Your task to perform on an android device: turn on bluetooth scan Image 0: 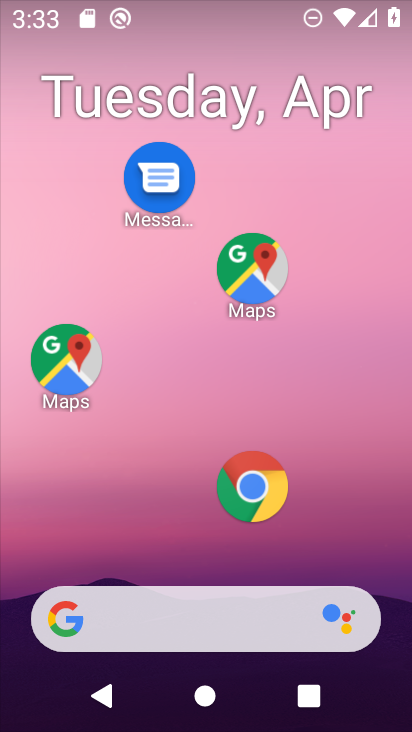
Step 0: drag from (261, 392) to (312, 231)
Your task to perform on an android device: turn on bluetooth scan Image 1: 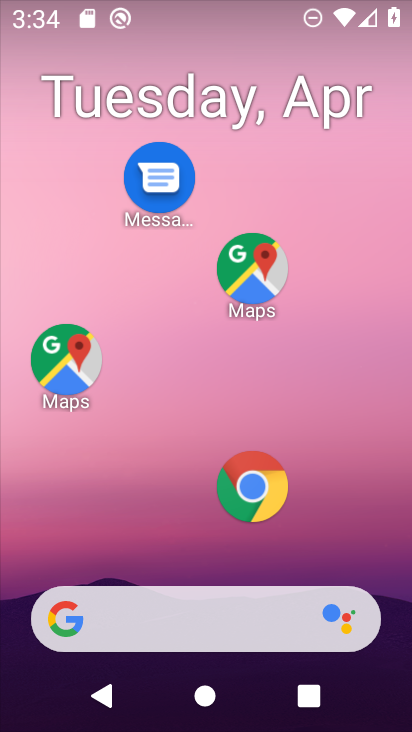
Step 1: drag from (338, 518) to (339, 112)
Your task to perform on an android device: turn on bluetooth scan Image 2: 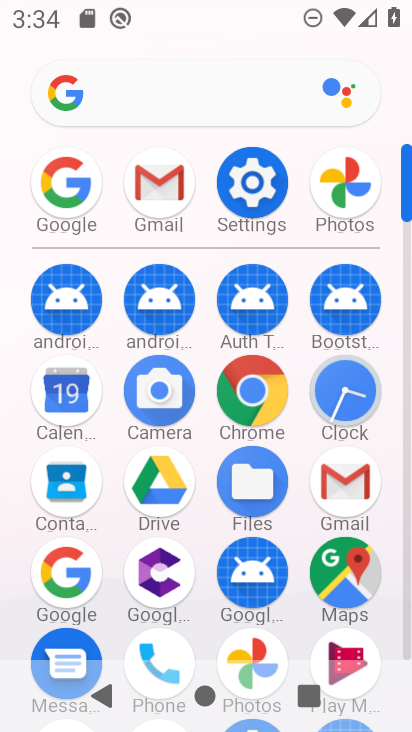
Step 2: click (250, 194)
Your task to perform on an android device: turn on bluetooth scan Image 3: 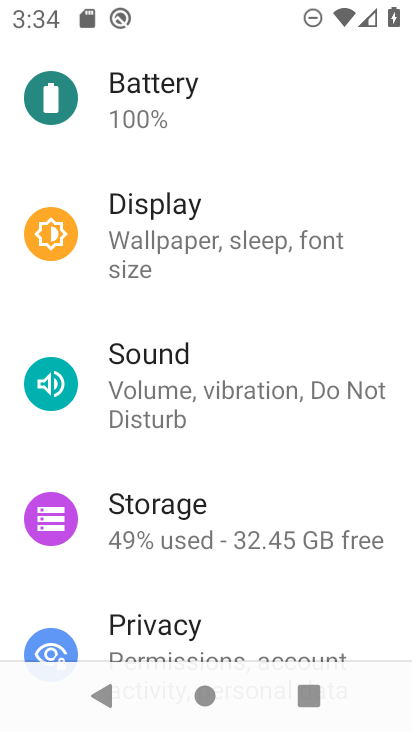
Step 3: drag from (230, 497) to (286, 125)
Your task to perform on an android device: turn on bluetooth scan Image 4: 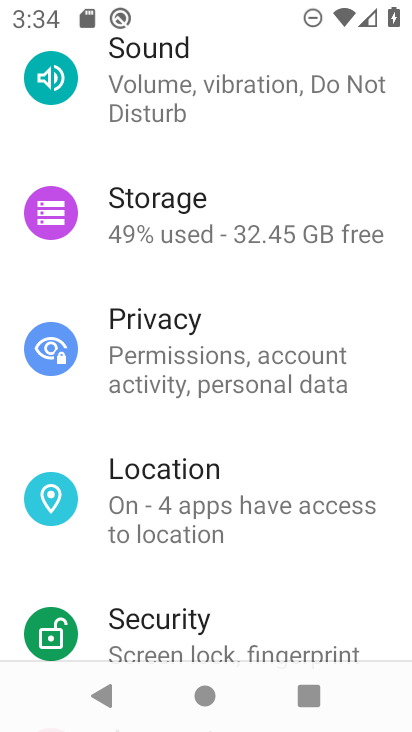
Step 4: drag from (253, 561) to (278, 296)
Your task to perform on an android device: turn on bluetooth scan Image 5: 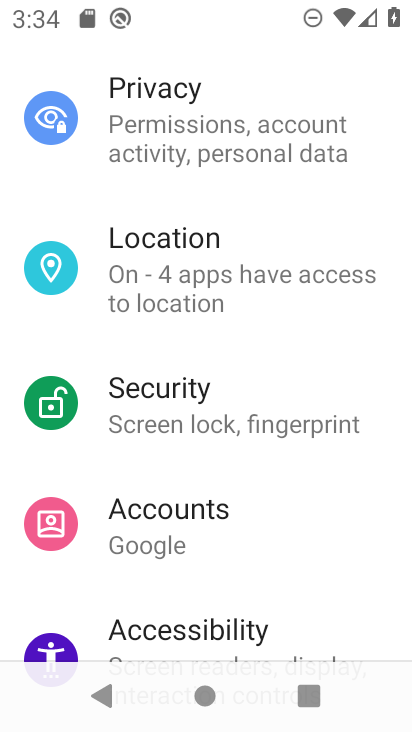
Step 5: click (277, 290)
Your task to perform on an android device: turn on bluetooth scan Image 6: 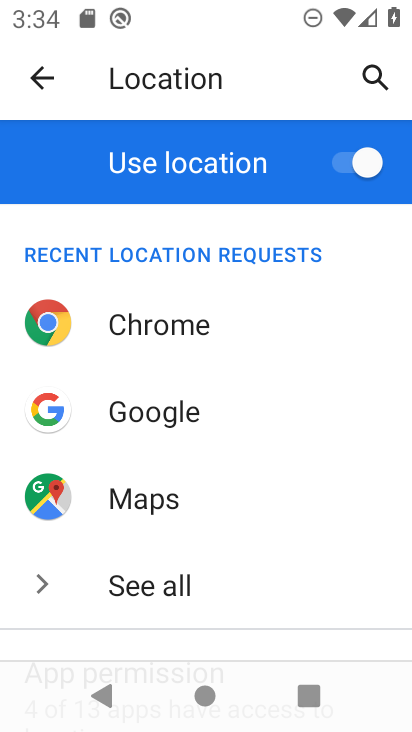
Step 6: drag from (247, 500) to (259, 153)
Your task to perform on an android device: turn on bluetooth scan Image 7: 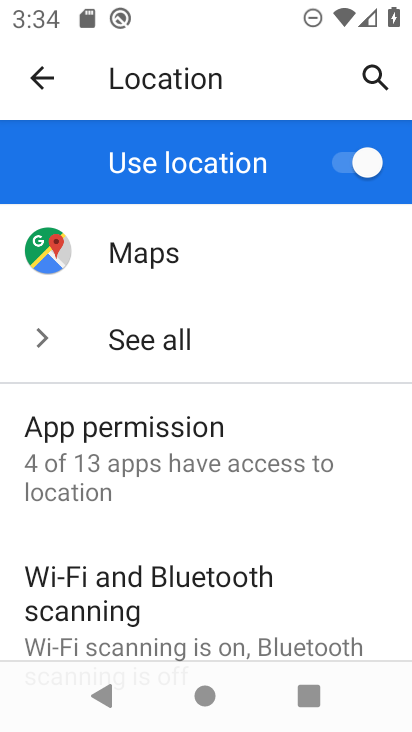
Step 7: click (201, 572)
Your task to perform on an android device: turn on bluetooth scan Image 8: 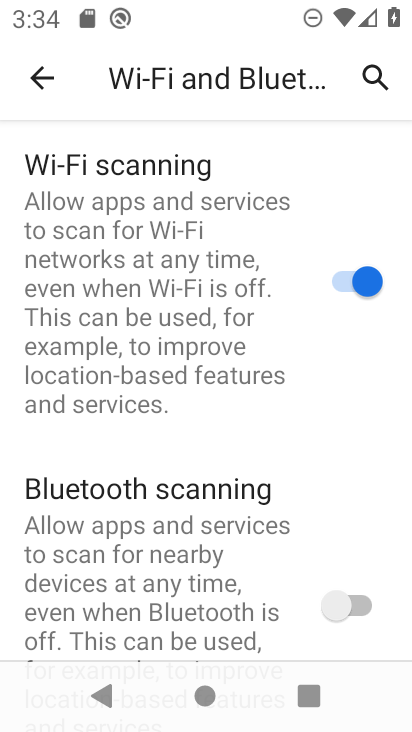
Step 8: click (314, 603)
Your task to perform on an android device: turn on bluetooth scan Image 9: 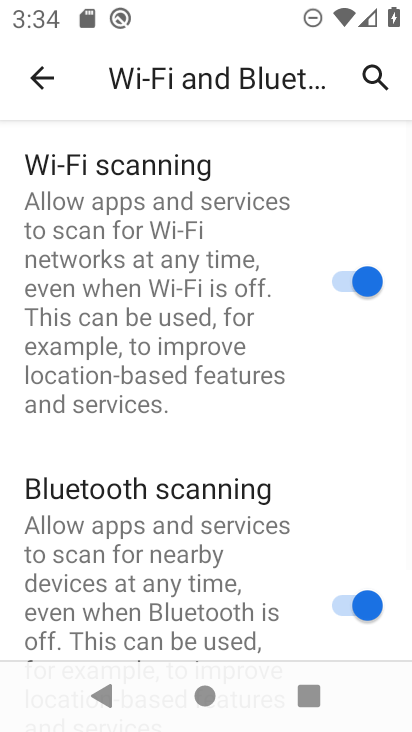
Step 9: task complete